Your task to perform on an android device: set the timer Image 0: 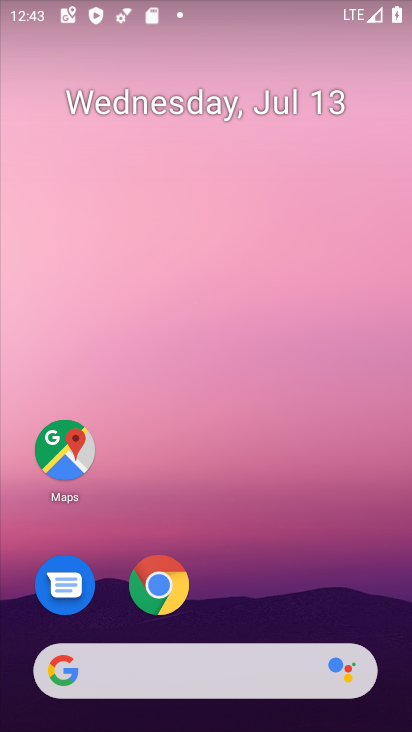
Step 0: drag from (197, 486) to (191, 233)
Your task to perform on an android device: set the timer Image 1: 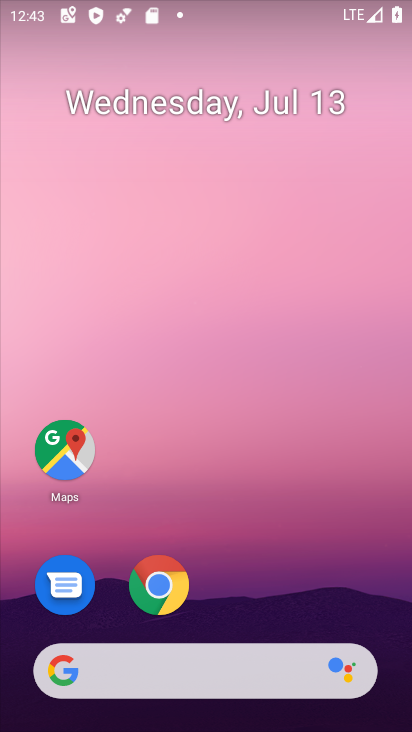
Step 1: click (189, 242)
Your task to perform on an android device: set the timer Image 2: 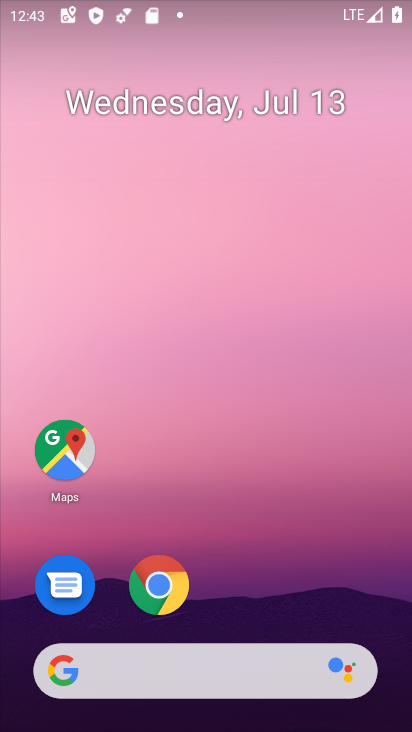
Step 2: drag from (175, 326) to (173, 152)
Your task to perform on an android device: set the timer Image 3: 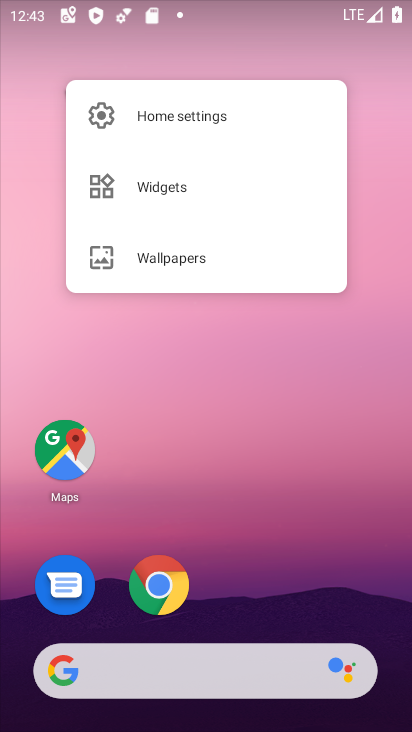
Step 3: click (257, 620)
Your task to perform on an android device: set the timer Image 4: 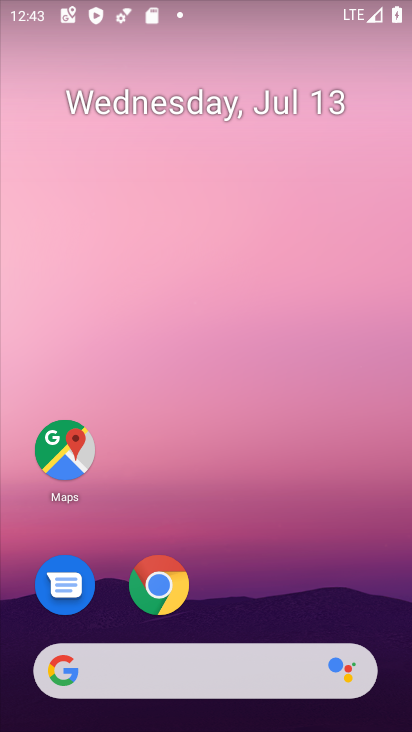
Step 4: drag from (232, 351) to (225, 233)
Your task to perform on an android device: set the timer Image 5: 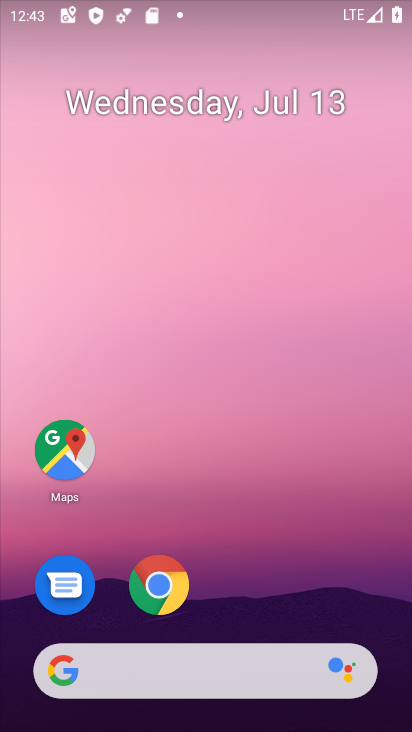
Step 5: drag from (261, 416) to (249, 141)
Your task to perform on an android device: set the timer Image 6: 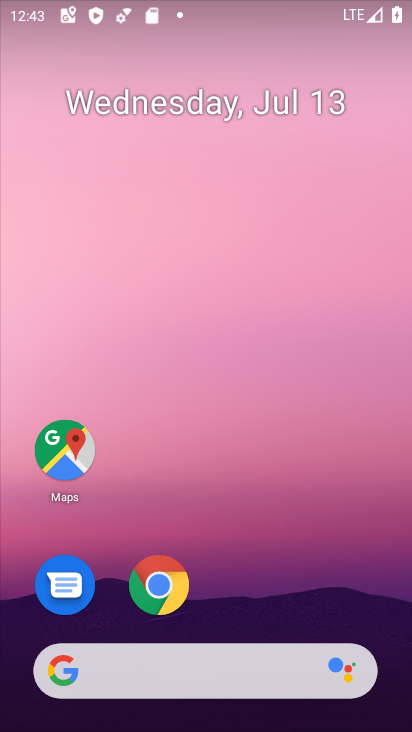
Step 6: drag from (250, 595) to (245, 416)
Your task to perform on an android device: set the timer Image 7: 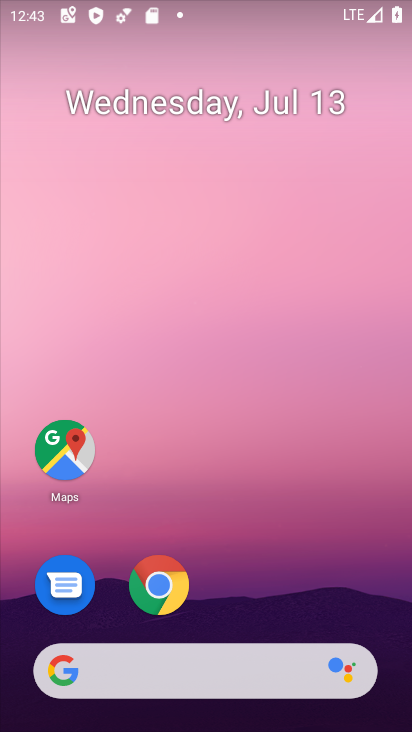
Step 7: drag from (207, 578) to (212, 270)
Your task to perform on an android device: set the timer Image 8: 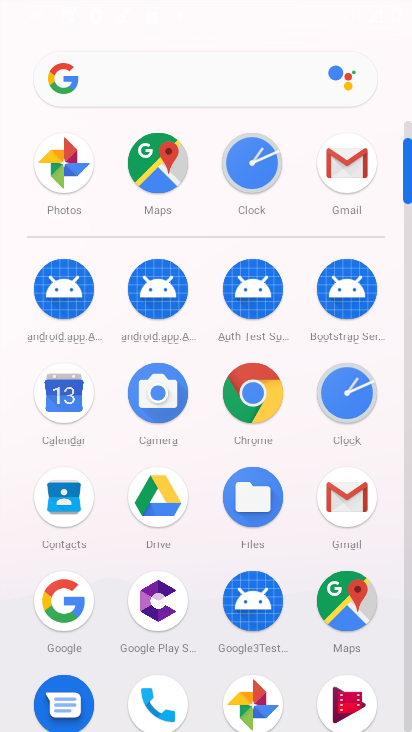
Step 8: click (346, 403)
Your task to perform on an android device: set the timer Image 9: 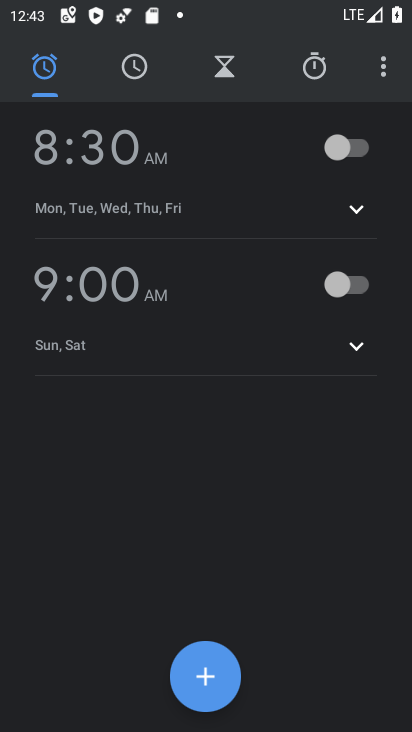
Step 9: click (384, 80)
Your task to perform on an android device: set the timer Image 10: 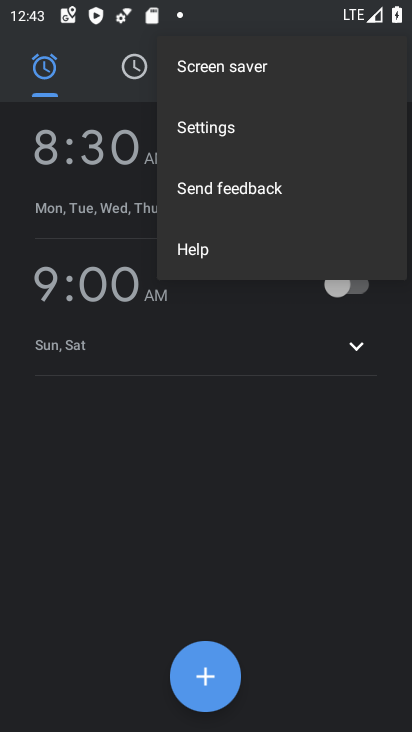
Step 10: click (133, 390)
Your task to perform on an android device: set the timer Image 11: 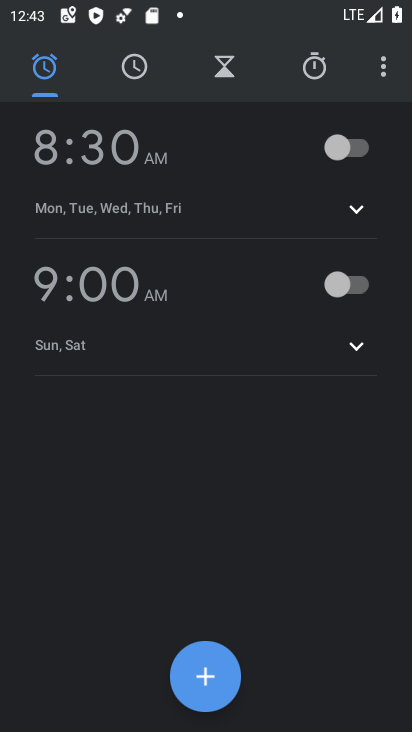
Step 11: click (220, 63)
Your task to perform on an android device: set the timer Image 12: 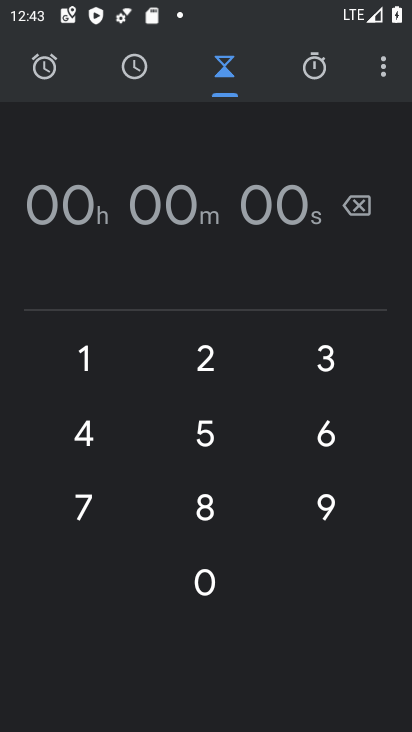
Step 12: click (82, 354)
Your task to perform on an android device: set the timer Image 13: 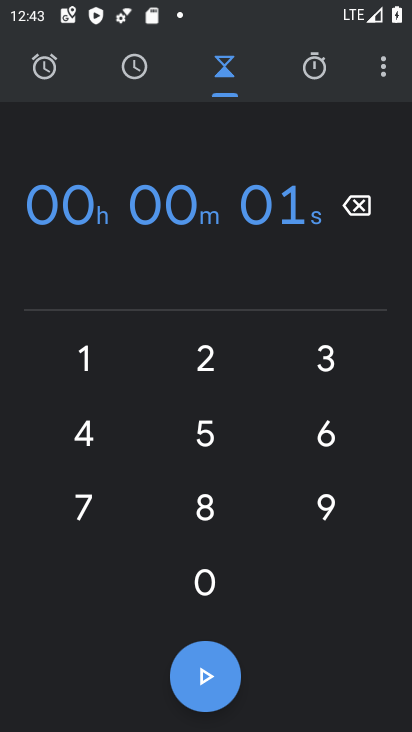
Step 13: click (204, 583)
Your task to perform on an android device: set the timer Image 14: 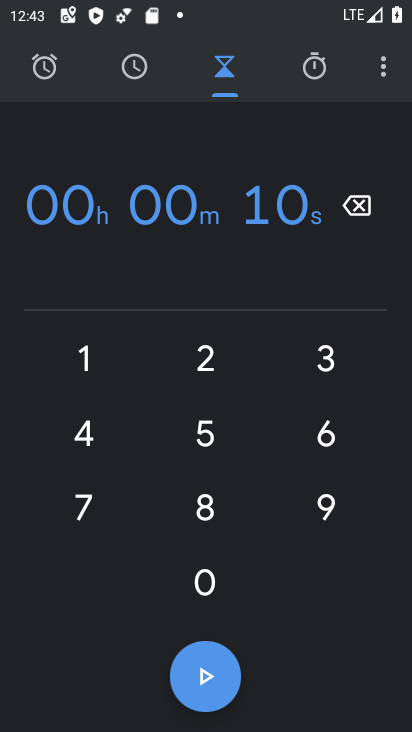
Step 14: click (204, 583)
Your task to perform on an android device: set the timer Image 15: 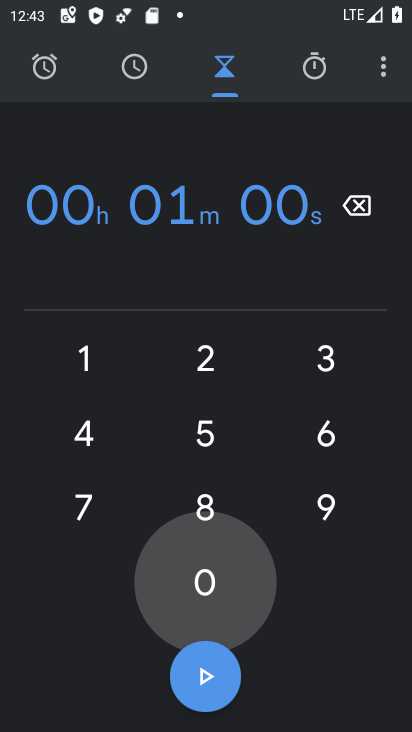
Step 15: click (204, 583)
Your task to perform on an android device: set the timer Image 16: 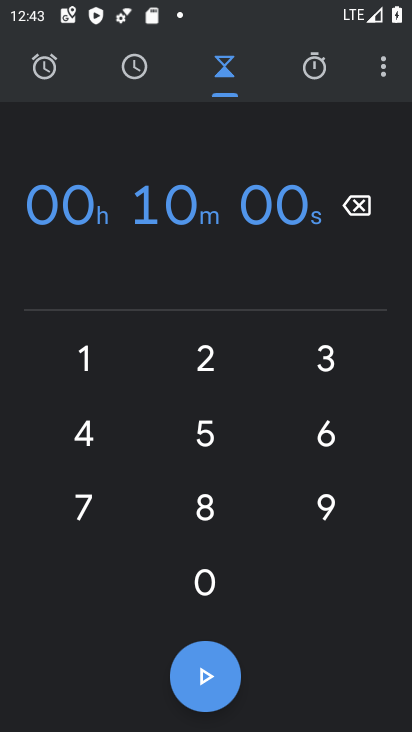
Step 16: click (214, 695)
Your task to perform on an android device: set the timer Image 17: 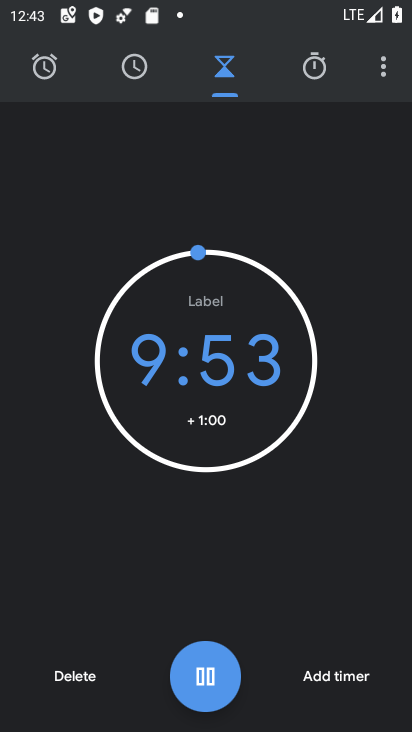
Step 17: task complete